Your task to perform on an android device: refresh tabs in the chrome app Image 0: 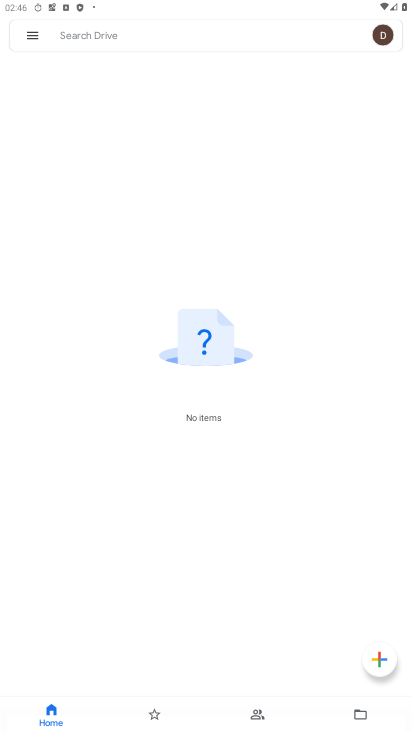
Step 0: press home button
Your task to perform on an android device: refresh tabs in the chrome app Image 1: 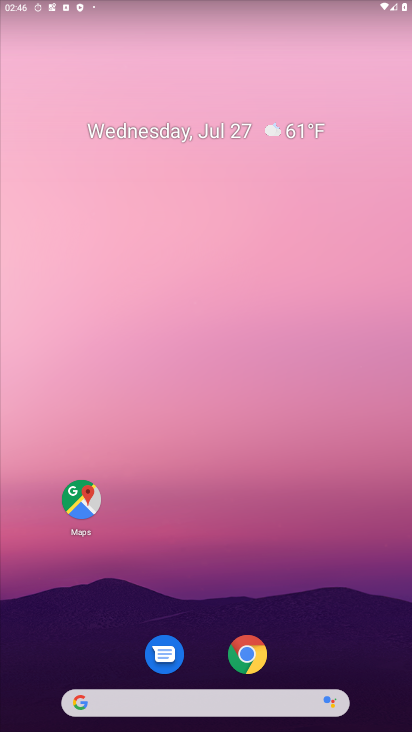
Step 1: drag from (323, 635) to (349, 191)
Your task to perform on an android device: refresh tabs in the chrome app Image 2: 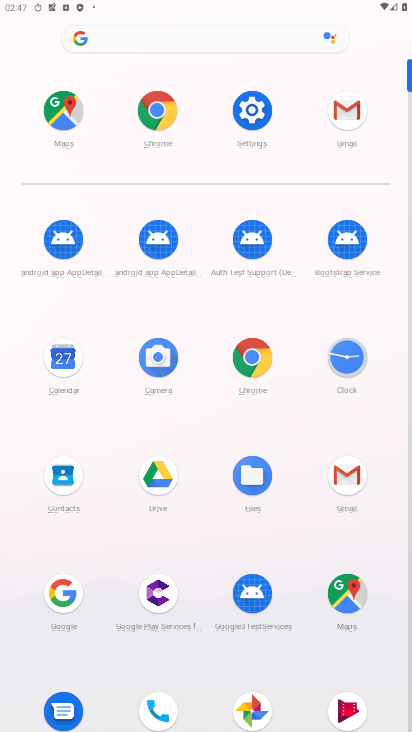
Step 2: click (250, 346)
Your task to perform on an android device: refresh tabs in the chrome app Image 3: 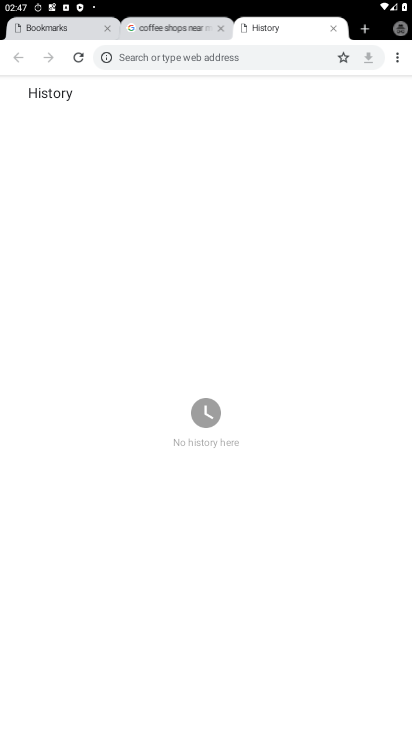
Step 3: click (82, 59)
Your task to perform on an android device: refresh tabs in the chrome app Image 4: 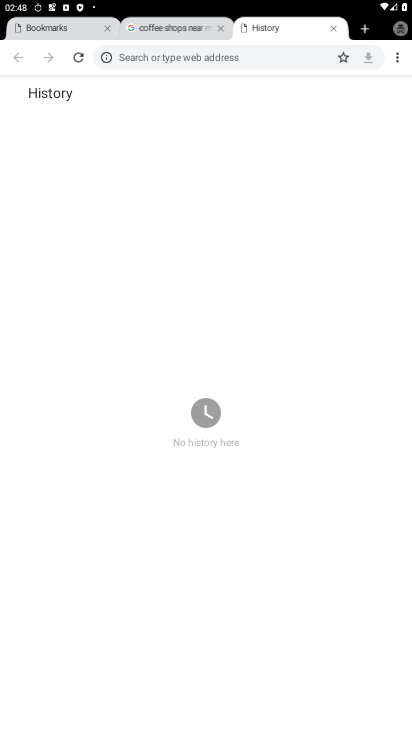
Step 4: click (72, 55)
Your task to perform on an android device: refresh tabs in the chrome app Image 5: 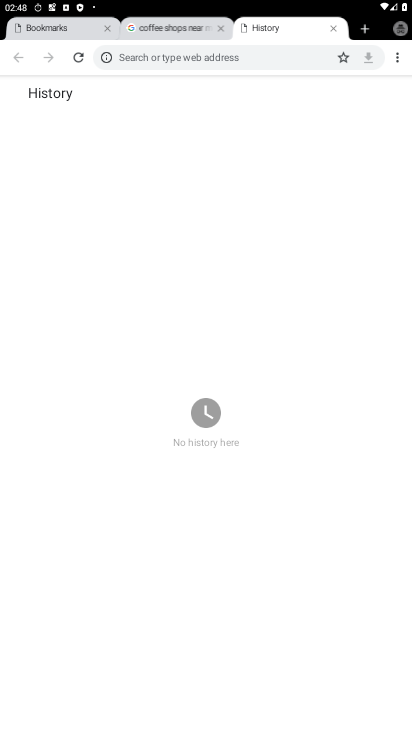
Step 5: task complete